Your task to perform on an android device: Open internet settings Image 0: 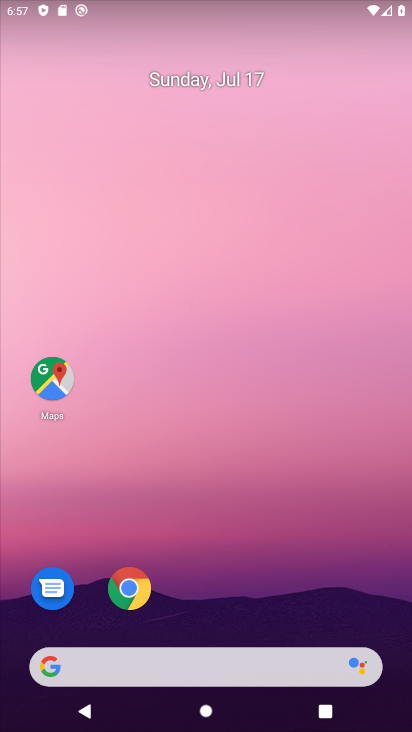
Step 0: drag from (386, 641) to (241, 0)
Your task to perform on an android device: Open internet settings Image 1: 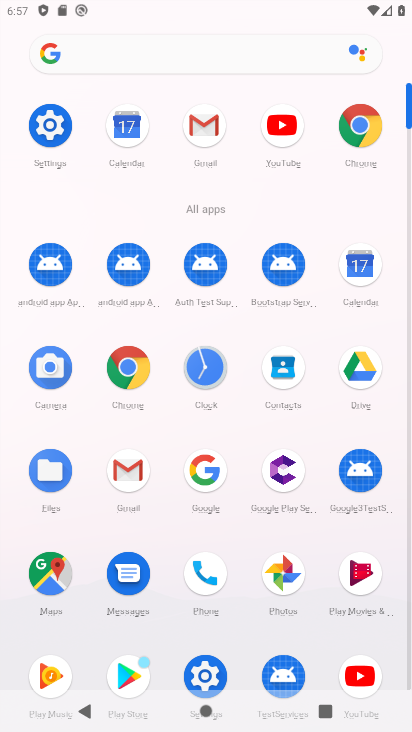
Step 1: click (46, 138)
Your task to perform on an android device: Open internet settings Image 2: 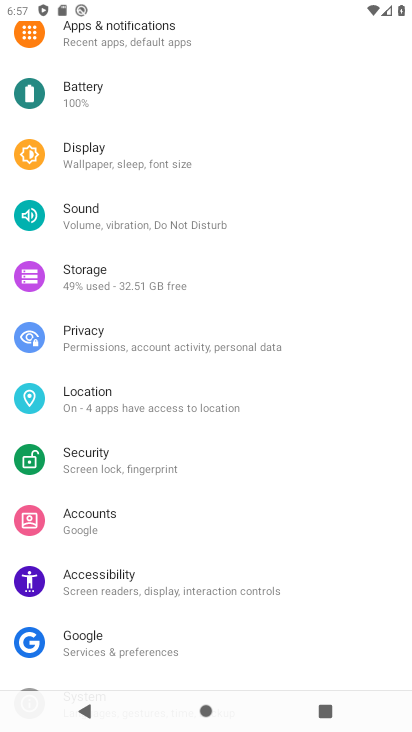
Step 2: drag from (137, 96) to (111, 687)
Your task to perform on an android device: Open internet settings Image 3: 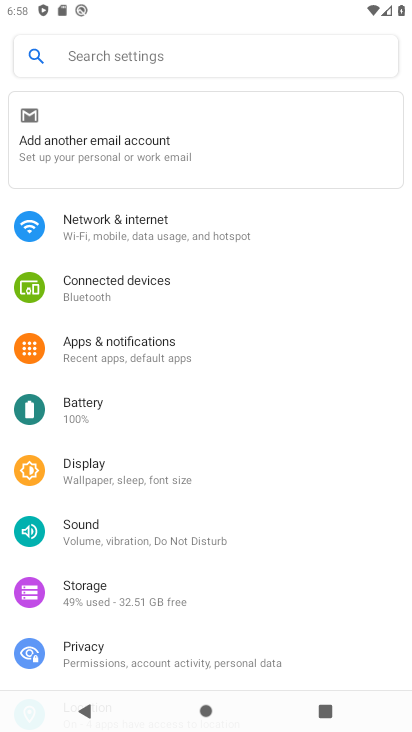
Step 3: click (182, 248)
Your task to perform on an android device: Open internet settings Image 4: 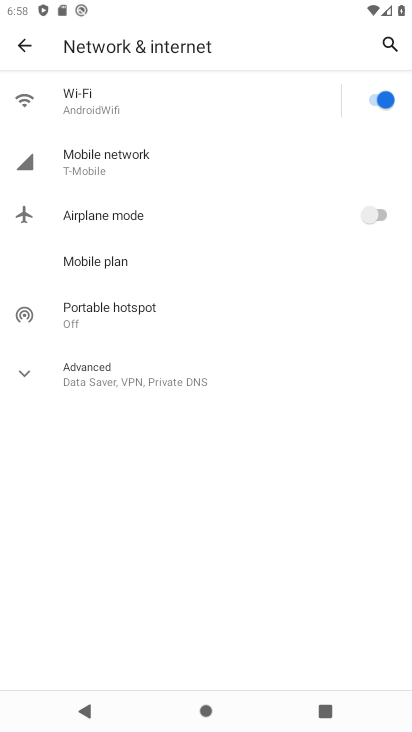
Step 4: task complete